Your task to perform on an android device: turn on location history Image 0: 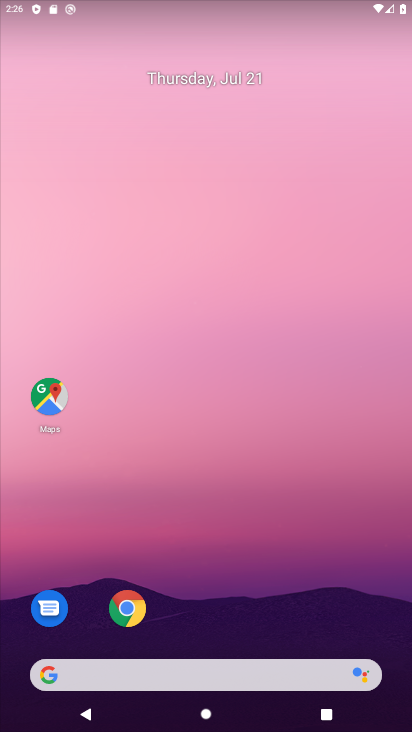
Step 0: drag from (224, 667) to (311, 1)
Your task to perform on an android device: turn on location history Image 1: 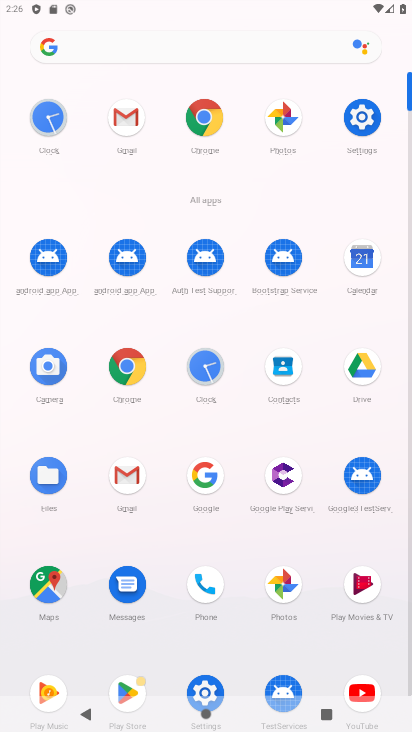
Step 1: click (371, 141)
Your task to perform on an android device: turn on location history Image 2: 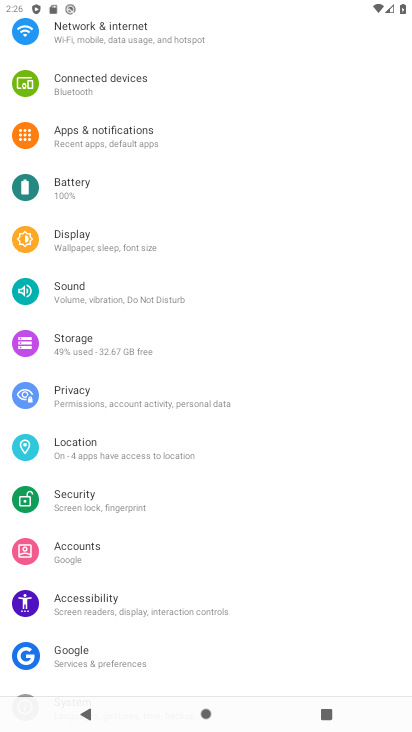
Step 2: click (100, 447)
Your task to perform on an android device: turn on location history Image 3: 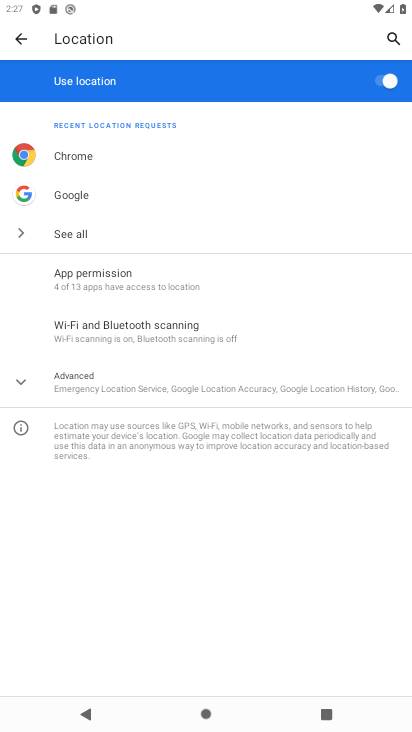
Step 3: click (109, 384)
Your task to perform on an android device: turn on location history Image 4: 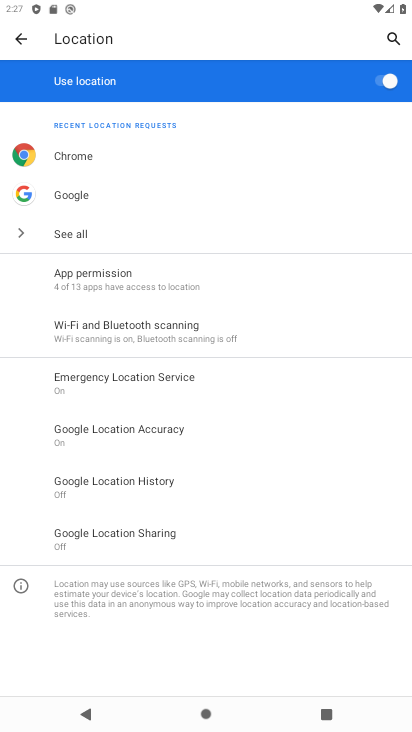
Step 4: click (174, 483)
Your task to perform on an android device: turn on location history Image 5: 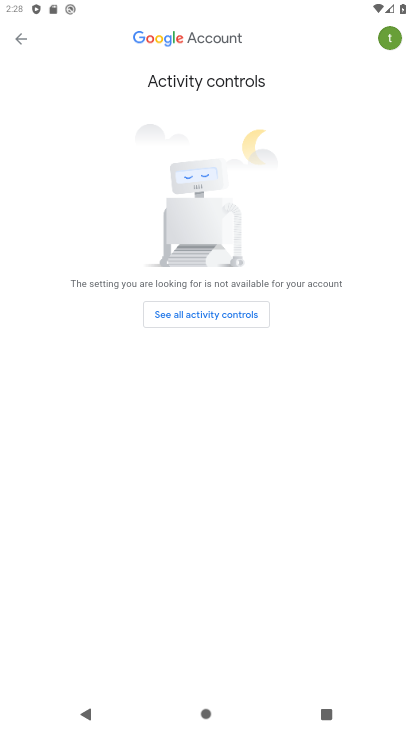
Step 5: task complete